Your task to perform on an android device: turn on sleep mode Image 0: 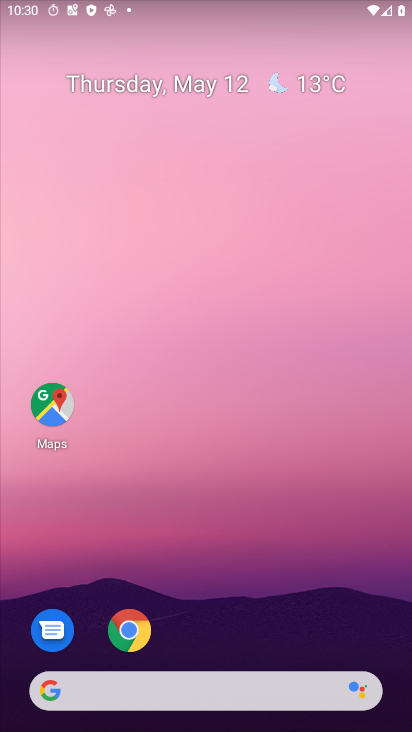
Step 0: drag from (229, 679) to (319, 129)
Your task to perform on an android device: turn on sleep mode Image 1: 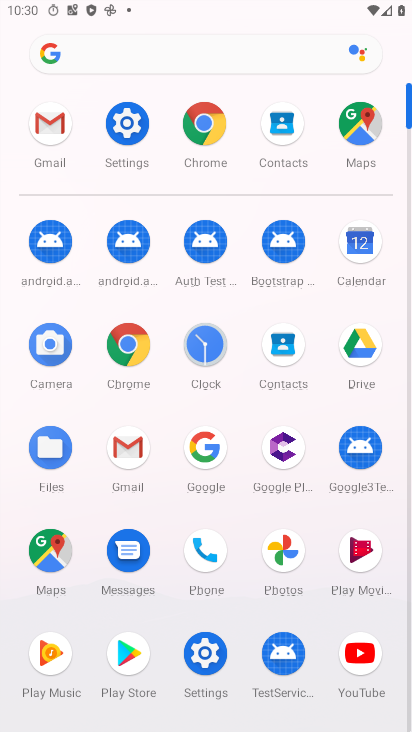
Step 1: click (148, 142)
Your task to perform on an android device: turn on sleep mode Image 2: 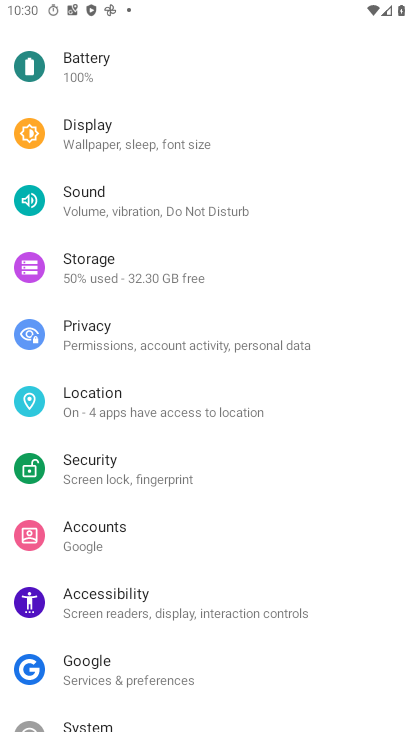
Step 2: click (84, 150)
Your task to perform on an android device: turn on sleep mode Image 3: 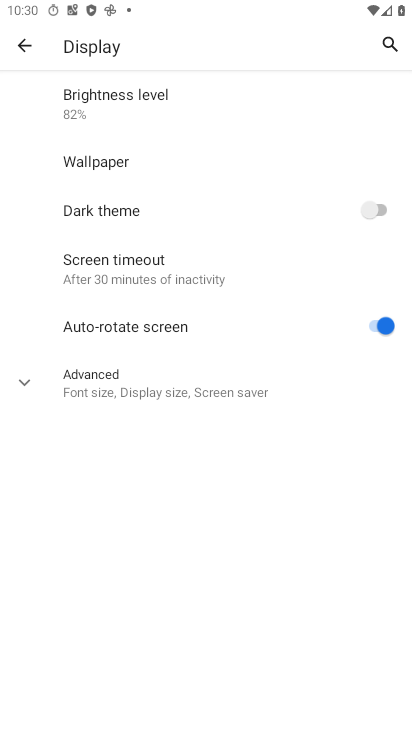
Step 3: click (106, 383)
Your task to perform on an android device: turn on sleep mode Image 4: 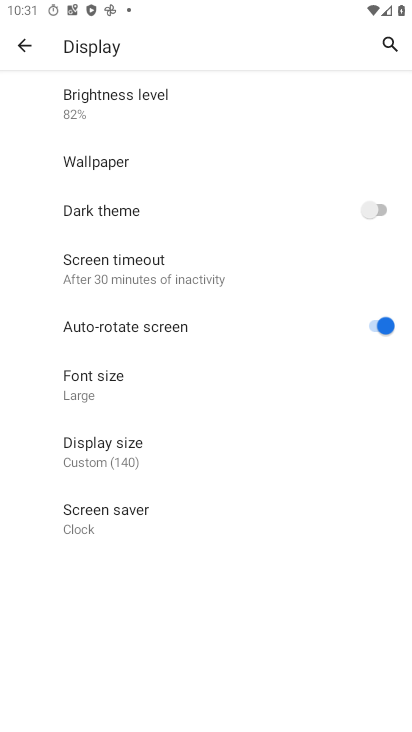
Step 4: task complete